Your task to perform on an android device: choose inbox layout in the gmail app Image 0: 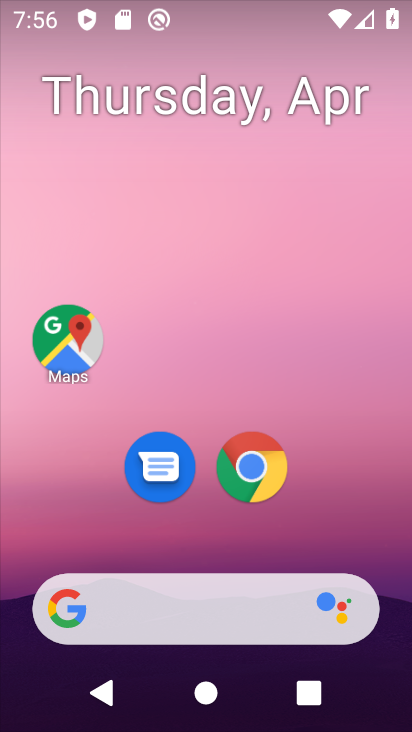
Step 0: drag from (195, 591) to (184, 148)
Your task to perform on an android device: choose inbox layout in the gmail app Image 1: 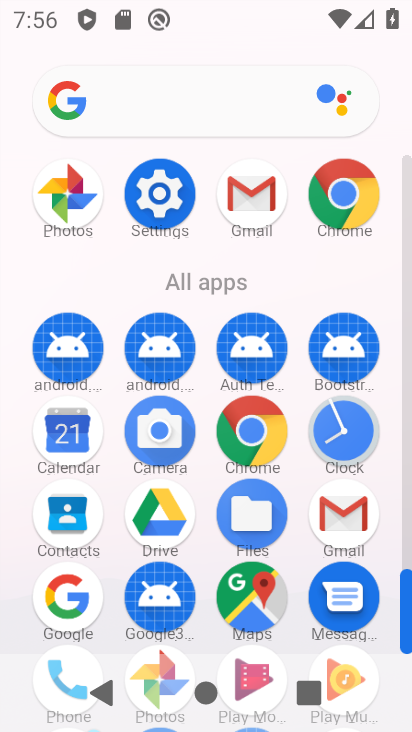
Step 1: click (262, 201)
Your task to perform on an android device: choose inbox layout in the gmail app Image 2: 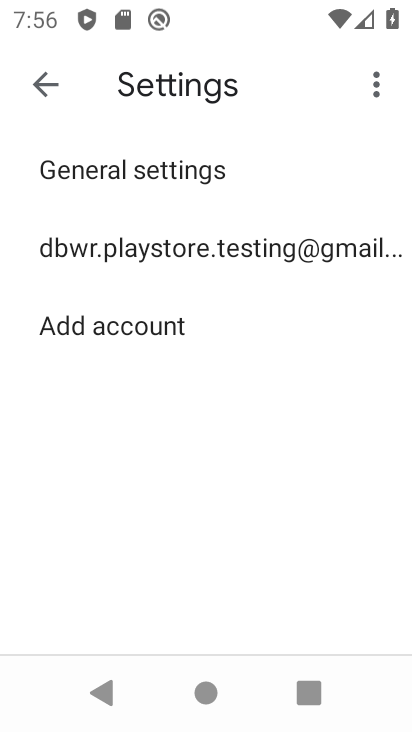
Step 2: click (202, 246)
Your task to perform on an android device: choose inbox layout in the gmail app Image 3: 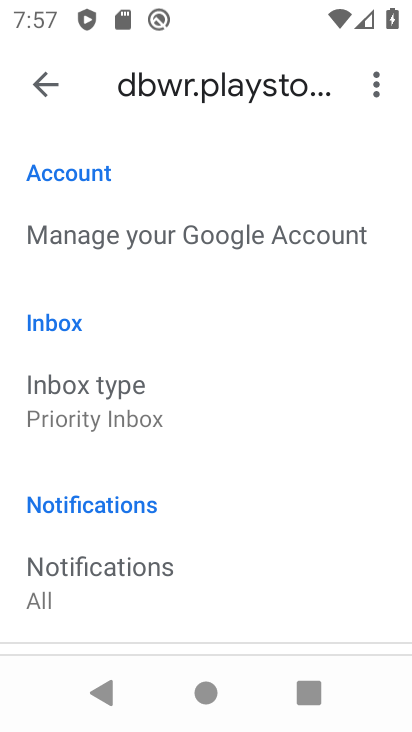
Step 3: click (141, 417)
Your task to perform on an android device: choose inbox layout in the gmail app Image 4: 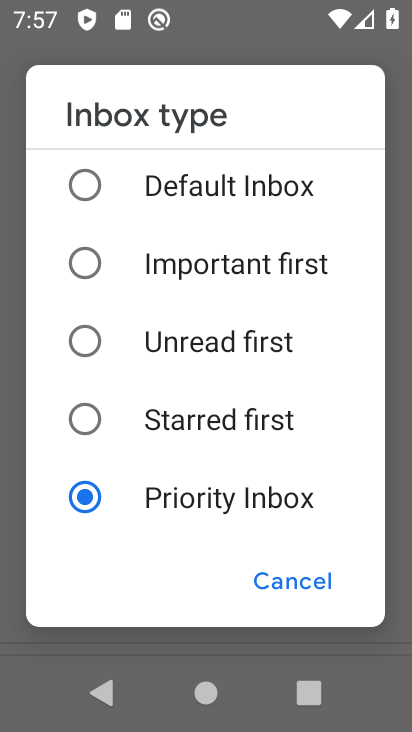
Step 4: click (165, 198)
Your task to perform on an android device: choose inbox layout in the gmail app Image 5: 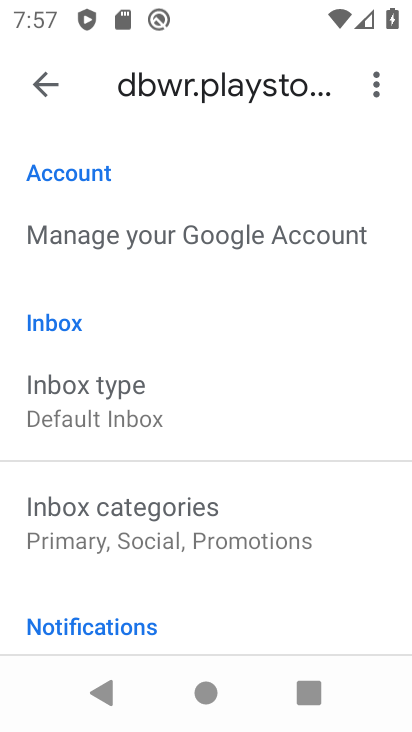
Step 5: task complete